Your task to perform on an android device: Search for seafood restaurants on Google Maps Image 0: 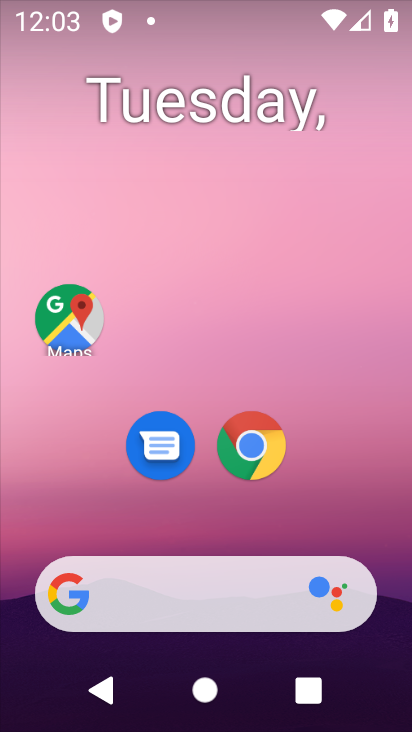
Step 0: drag from (314, 390) to (305, 115)
Your task to perform on an android device: Search for seafood restaurants on Google Maps Image 1: 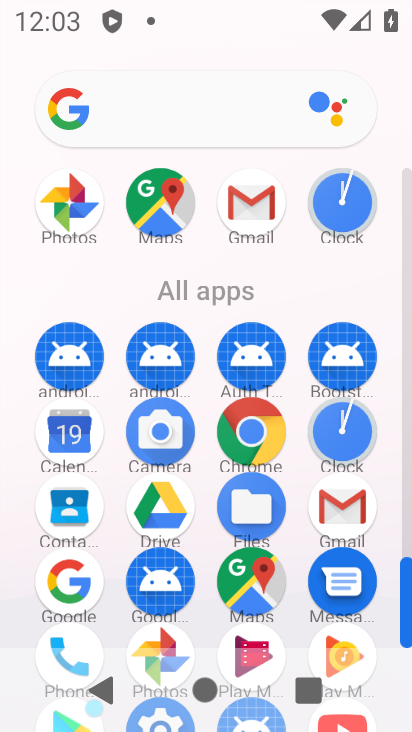
Step 1: click (259, 574)
Your task to perform on an android device: Search for seafood restaurants on Google Maps Image 2: 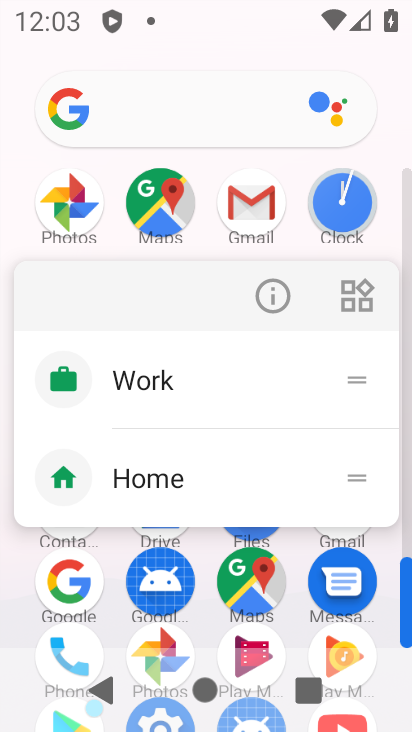
Step 2: click (239, 589)
Your task to perform on an android device: Search for seafood restaurants on Google Maps Image 3: 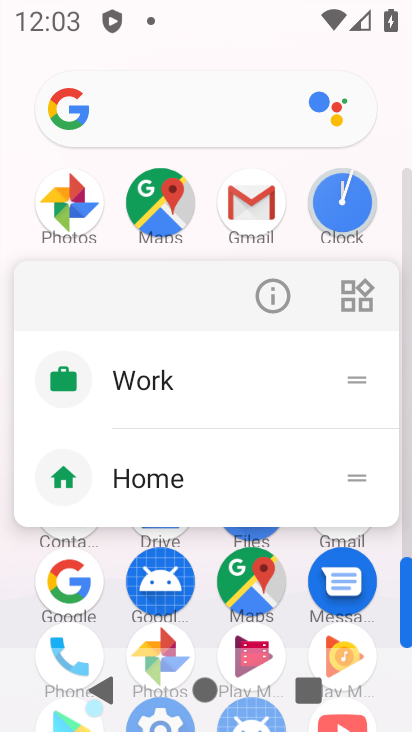
Step 3: click (240, 582)
Your task to perform on an android device: Search for seafood restaurants on Google Maps Image 4: 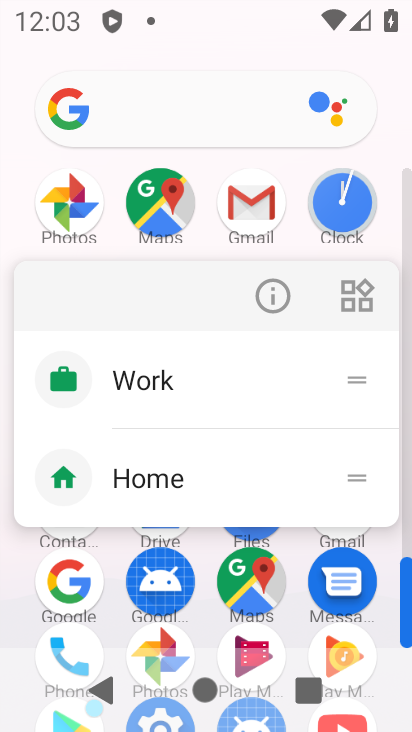
Step 4: click (255, 600)
Your task to perform on an android device: Search for seafood restaurants on Google Maps Image 5: 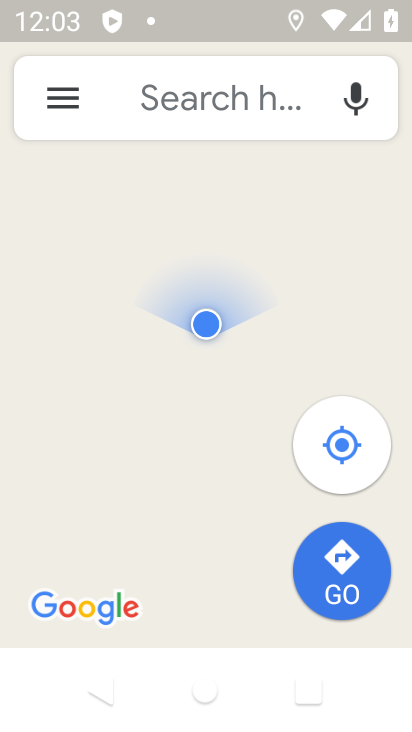
Step 5: click (223, 89)
Your task to perform on an android device: Search for seafood restaurants on Google Maps Image 6: 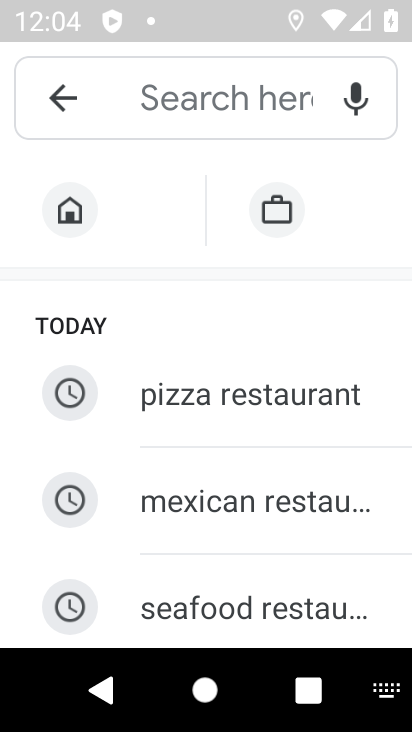
Step 6: type "seafood restaurants"
Your task to perform on an android device: Search for seafood restaurants on Google Maps Image 7: 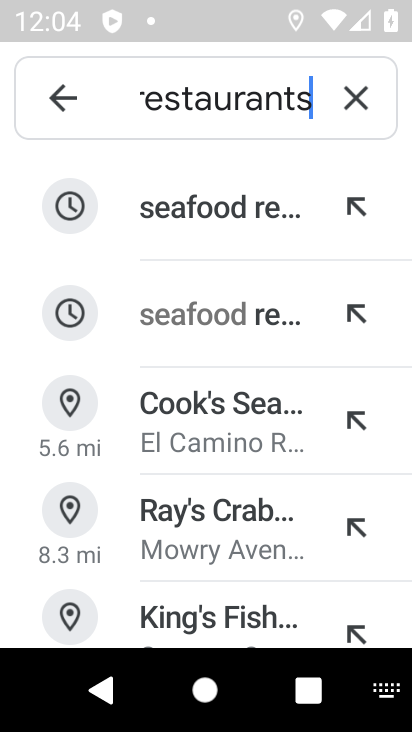
Step 7: press enter
Your task to perform on an android device: Search for seafood restaurants on Google Maps Image 8: 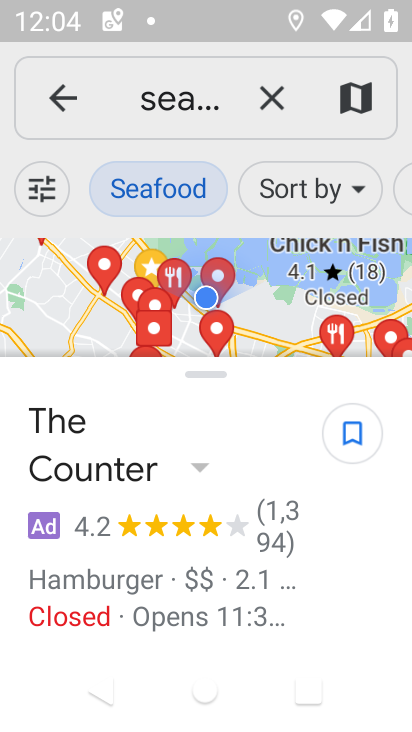
Step 8: task complete